Your task to perform on an android device: turn on wifi Image 0: 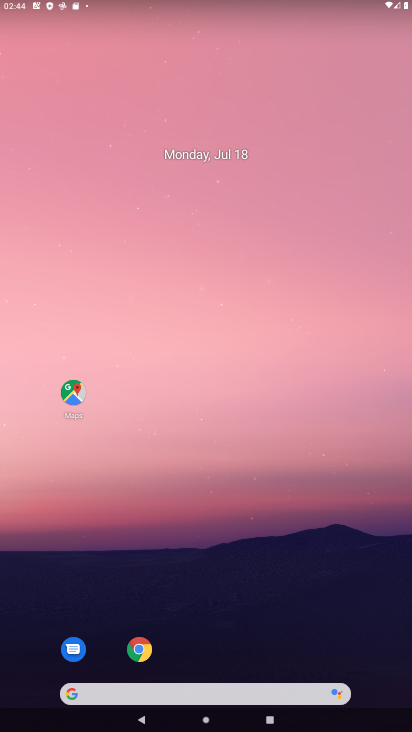
Step 0: drag from (231, 711) to (54, 63)
Your task to perform on an android device: turn on wifi Image 1: 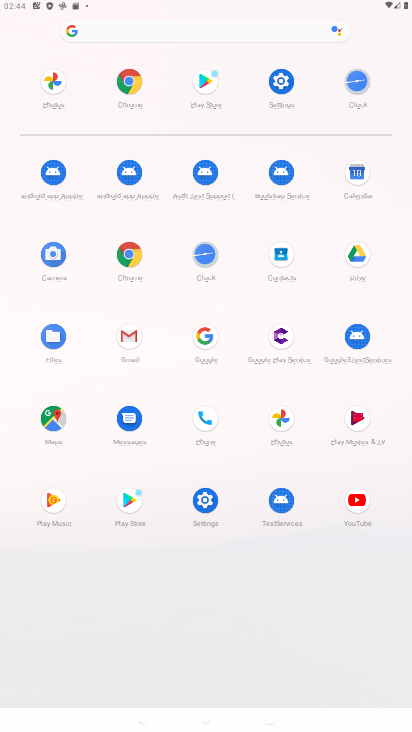
Step 1: click (284, 86)
Your task to perform on an android device: turn on wifi Image 2: 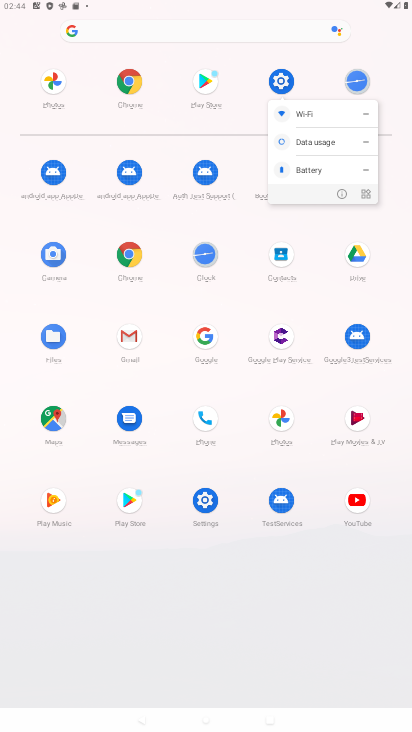
Step 2: click (284, 84)
Your task to perform on an android device: turn on wifi Image 3: 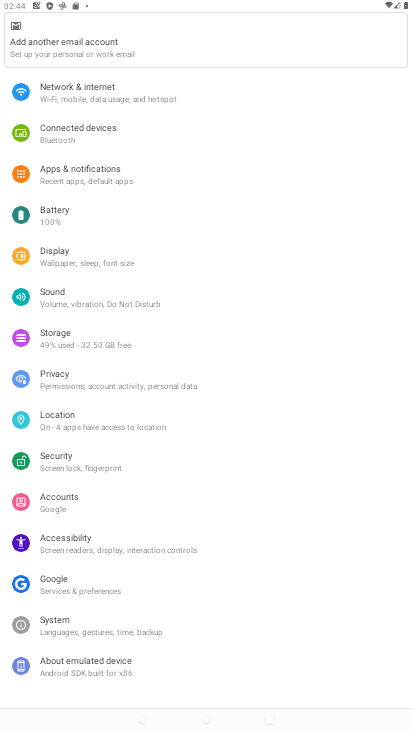
Step 3: click (251, 92)
Your task to perform on an android device: turn on wifi Image 4: 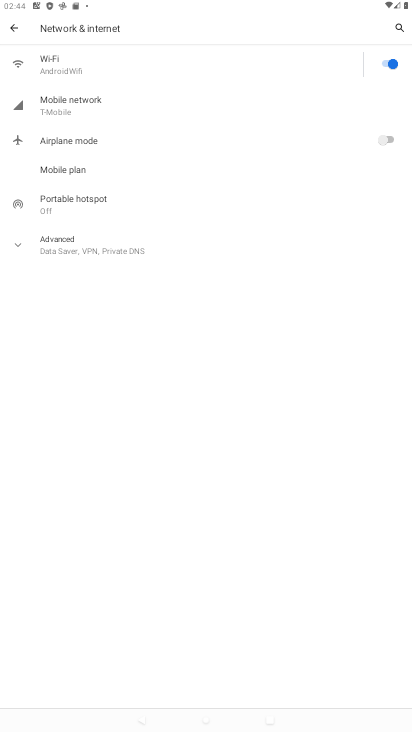
Step 4: task complete